Your task to perform on an android device: Open internet settings Image 0: 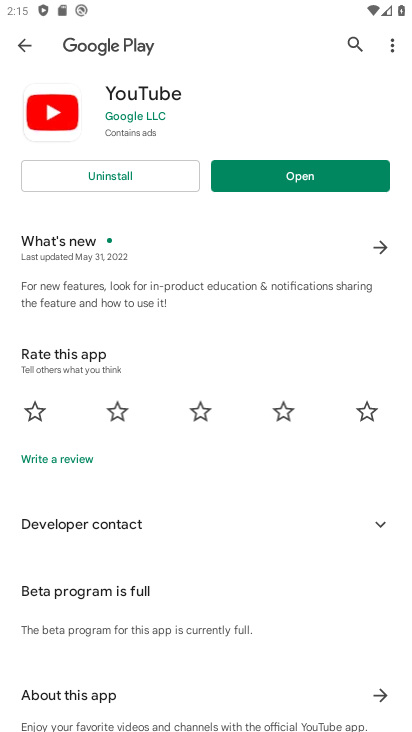
Step 0: press home button
Your task to perform on an android device: Open internet settings Image 1: 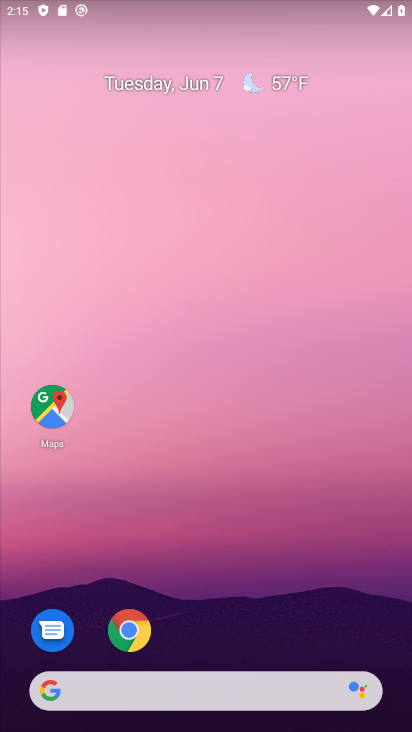
Step 1: drag from (393, 599) to (342, 117)
Your task to perform on an android device: Open internet settings Image 2: 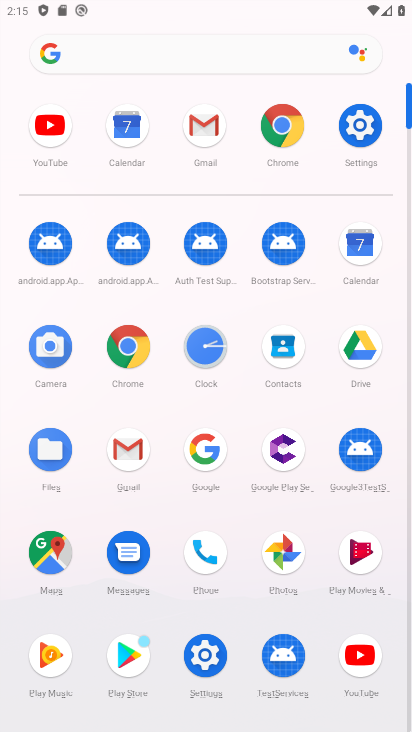
Step 2: click (365, 120)
Your task to perform on an android device: Open internet settings Image 3: 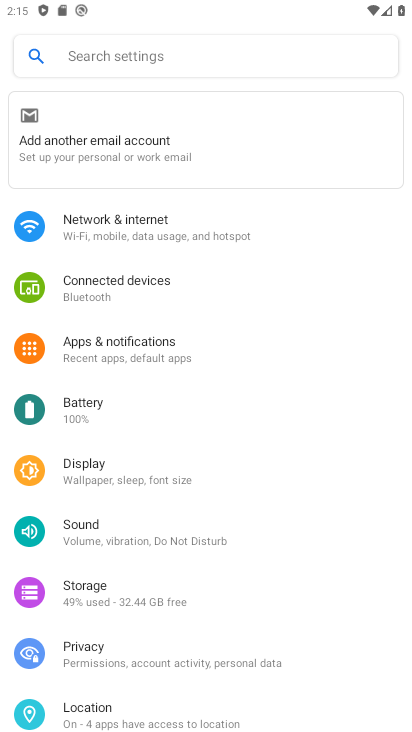
Step 3: click (143, 224)
Your task to perform on an android device: Open internet settings Image 4: 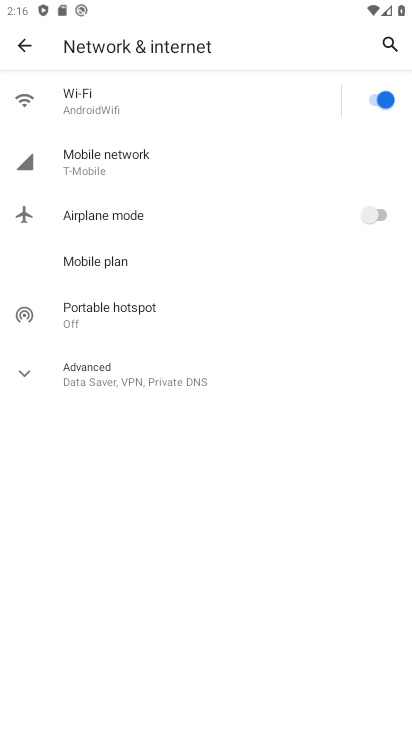
Step 4: click (21, 378)
Your task to perform on an android device: Open internet settings Image 5: 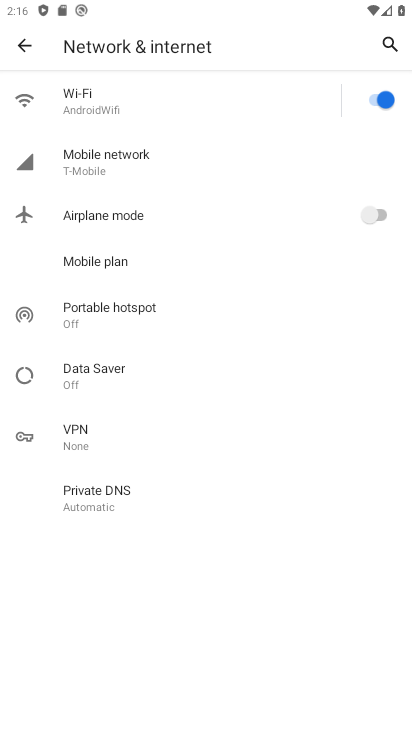
Step 5: task complete